Your task to perform on an android device: turn on showing notifications on the lock screen Image 0: 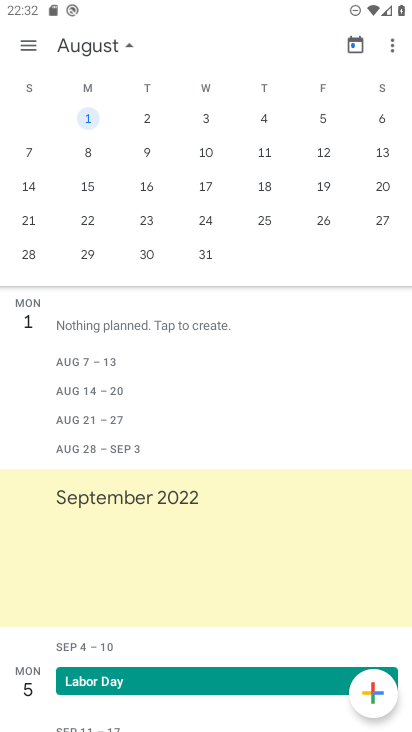
Step 0: press home button
Your task to perform on an android device: turn on showing notifications on the lock screen Image 1: 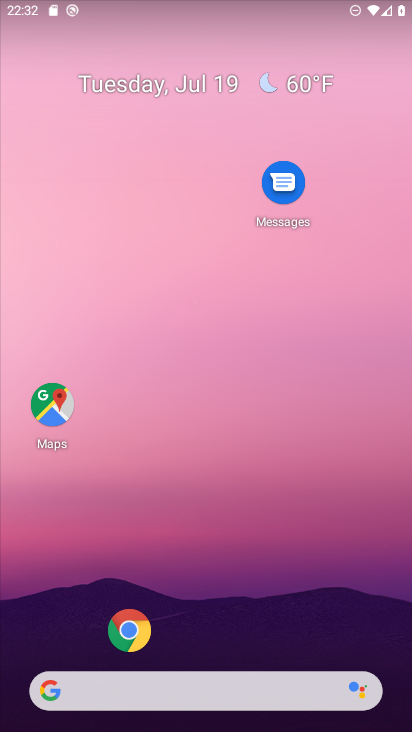
Step 1: drag from (130, 354) to (164, 187)
Your task to perform on an android device: turn on showing notifications on the lock screen Image 2: 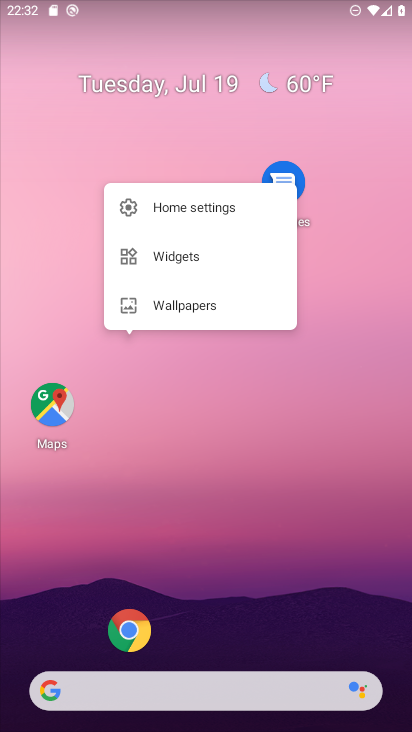
Step 2: drag from (139, 381) to (239, 22)
Your task to perform on an android device: turn on showing notifications on the lock screen Image 3: 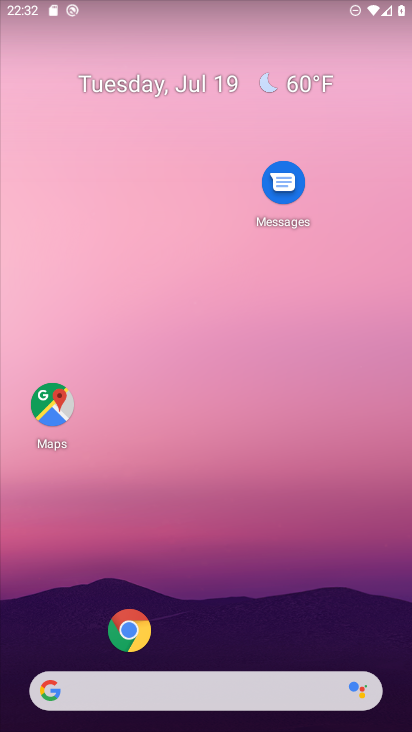
Step 3: drag from (8, 696) to (144, 31)
Your task to perform on an android device: turn on showing notifications on the lock screen Image 4: 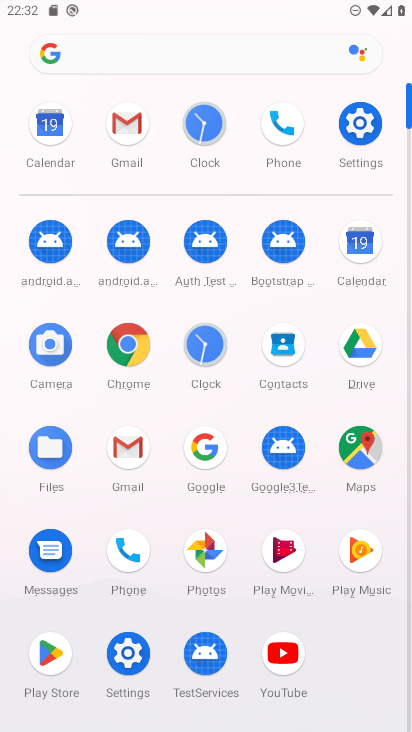
Step 4: click (135, 644)
Your task to perform on an android device: turn on showing notifications on the lock screen Image 5: 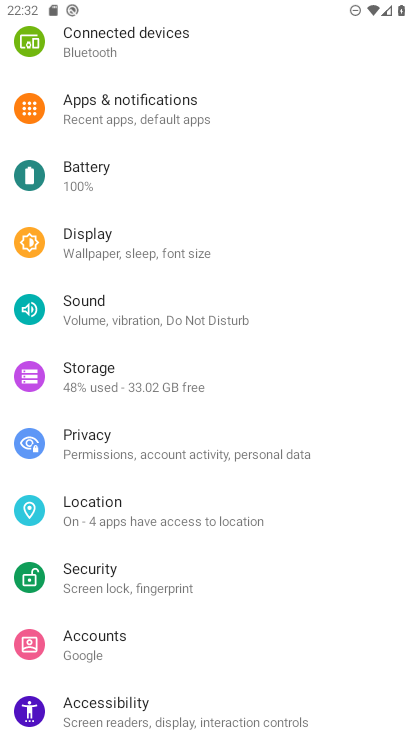
Step 5: click (98, 112)
Your task to perform on an android device: turn on showing notifications on the lock screen Image 6: 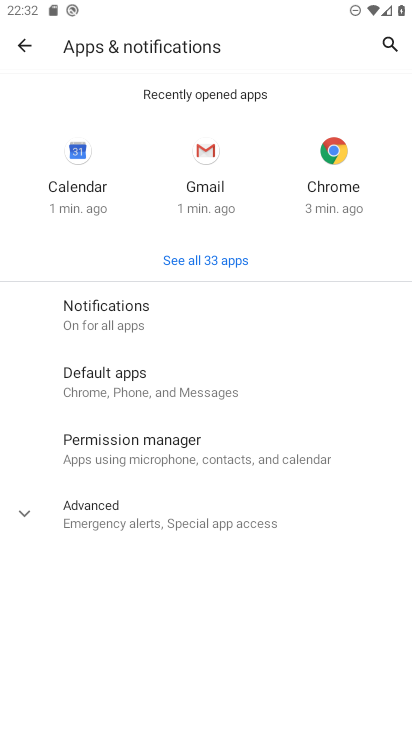
Step 6: click (112, 315)
Your task to perform on an android device: turn on showing notifications on the lock screen Image 7: 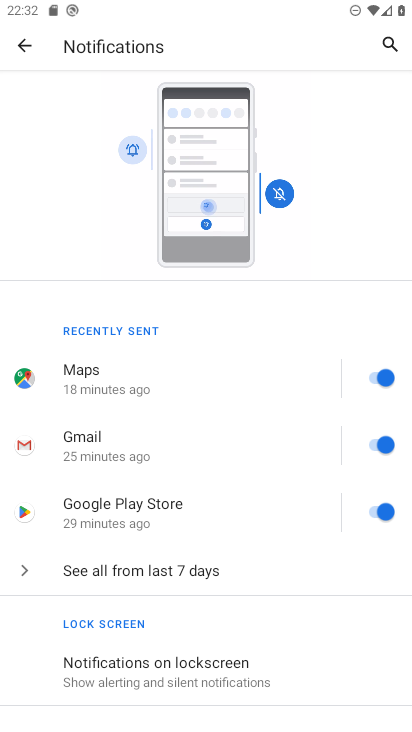
Step 7: click (147, 659)
Your task to perform on an android device: turn on showing notifications on the lock screen Image 8: 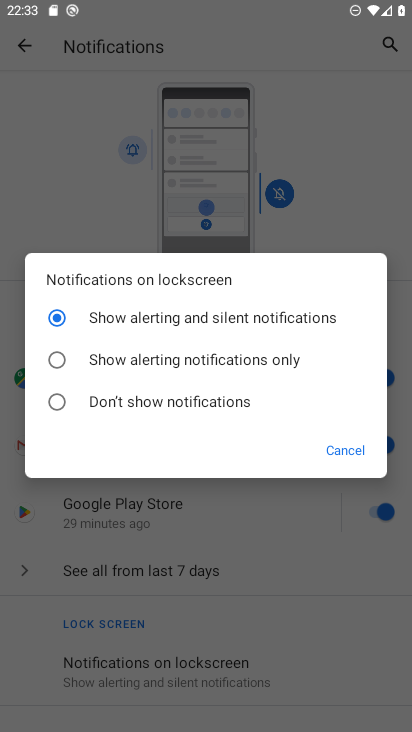
Step 8: task complete